Your task to perform on an android device: Open CNN.com Image 0: 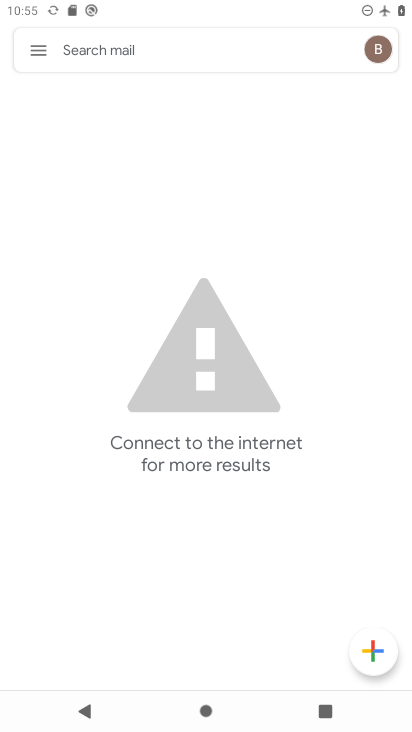
Step 0: press home button
Your task to perform on an android device: Open CNN.com Image 1: 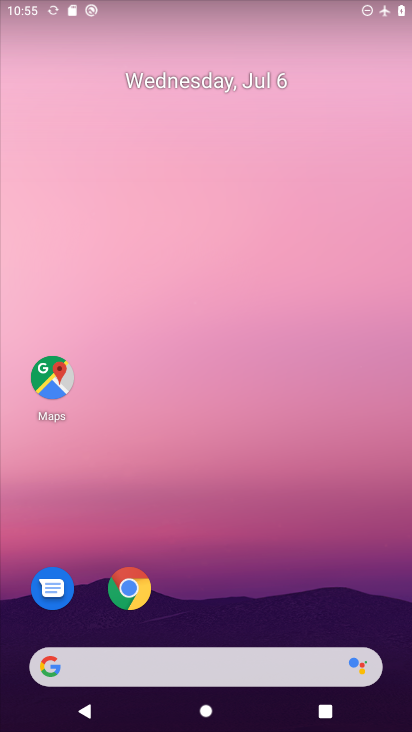
Step 1: click (135, 593)
Your task to perform on an android device: Open CNN.com Image 2: 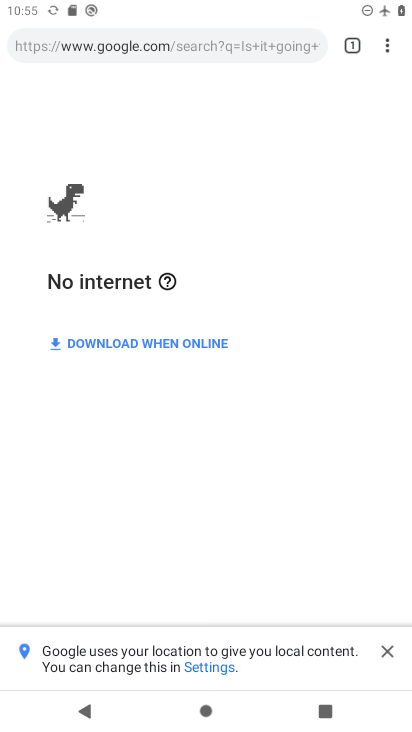
Step 2: click (240, 54)
Your task to perform on an android device: Open CNN.com Image 3: 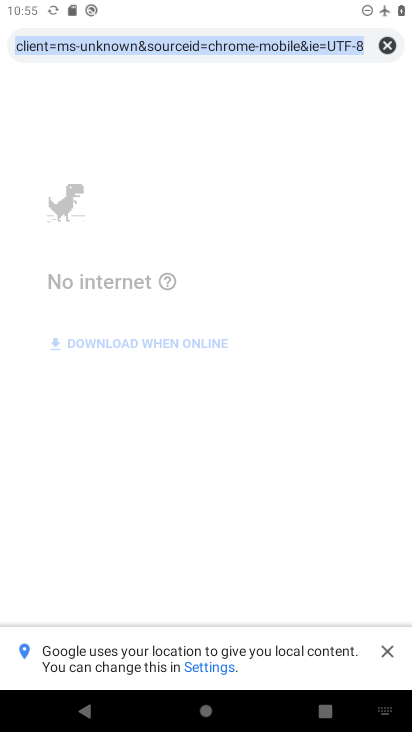
Step 3: type "CNN.com"
Your task to perform on an android device: Open CNN.com Image 4: 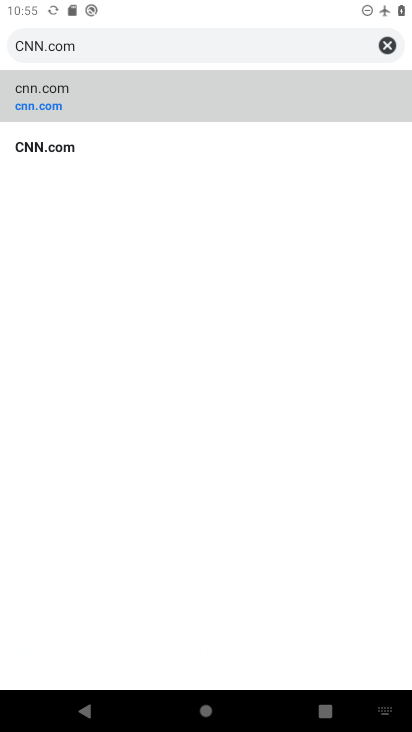
Step 4: click (44, 110)
Your task to perform on an android device: Open CNN.com Image 5: 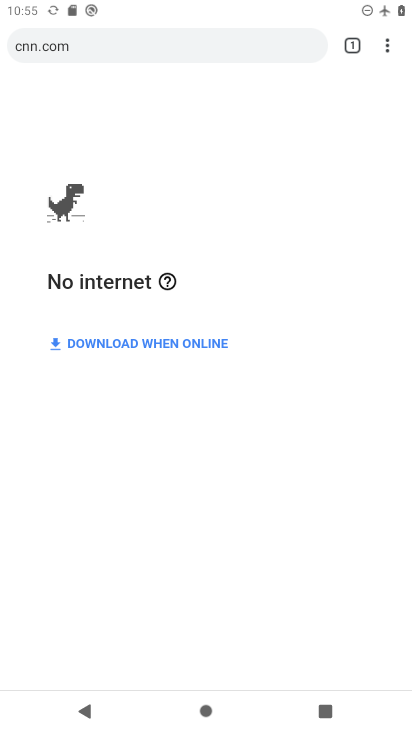
Step 5: task complete